Your task to perform on an android device: check google app version Image 0: 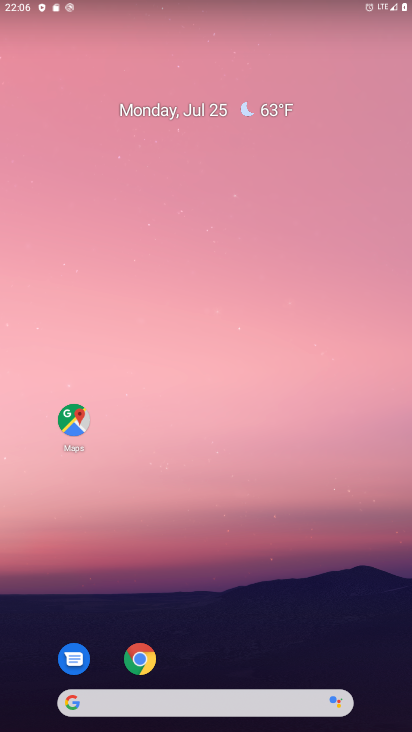
Step 0: drag from (238, 721) to (227, 141)
Your task to perform on an android device: check google app version Image 1: 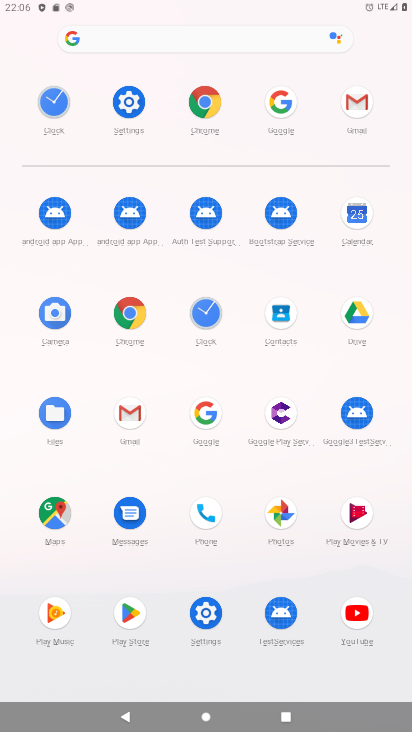
Step 1: click (200, 417)
Your task to perform on an android device: check google app version Image 2: 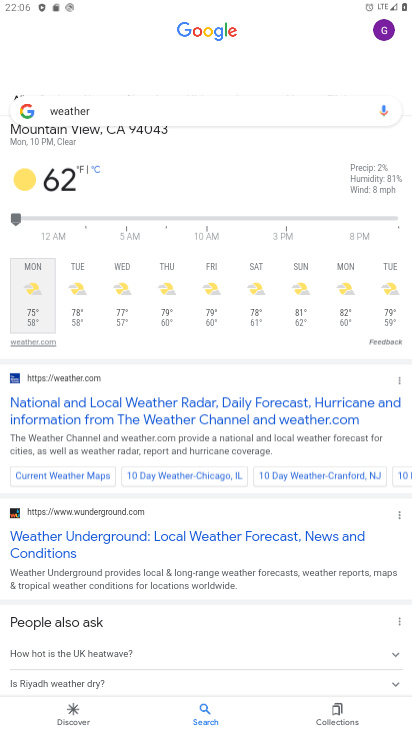
Step 2: click (390, 30)
Your task to perform on an android device: check google app version Image 3: 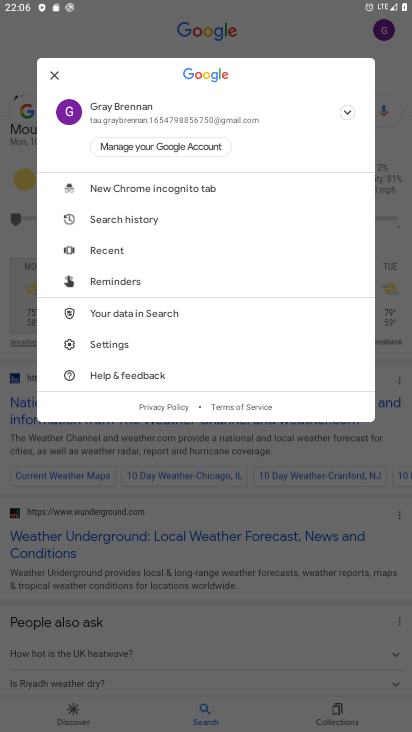
Step 3: click (96, 342)
Your task to perform on an android device: check google app version Image 4: 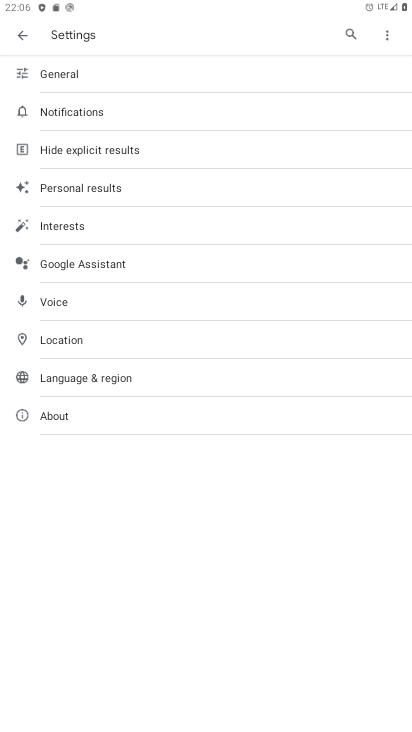
Step 4: click (52, 411)
Your task to perform on an android device: check google app version Image 5: 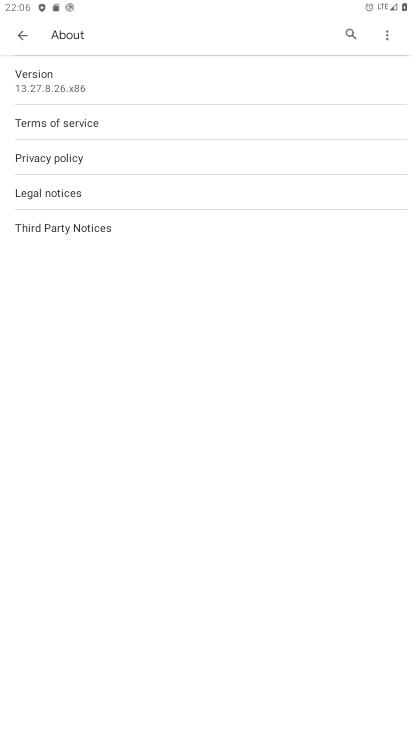
Step 5: task complete